Your task to perform on an android device: see creations saved in the google photos Image 0: 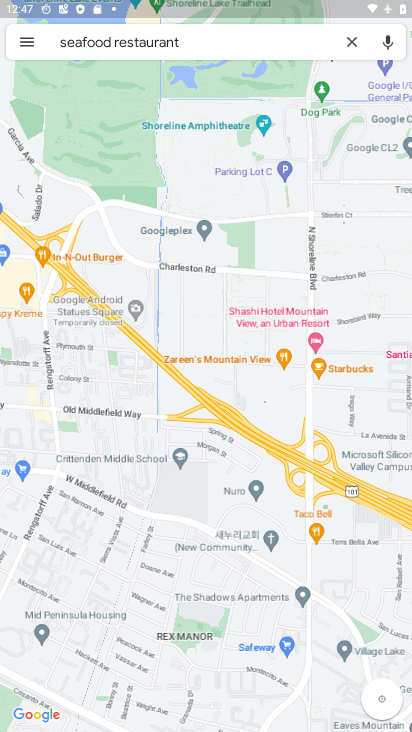
Step 0: press home button
Your task to perform on an android device: see creations saved in the google photos Image 1: 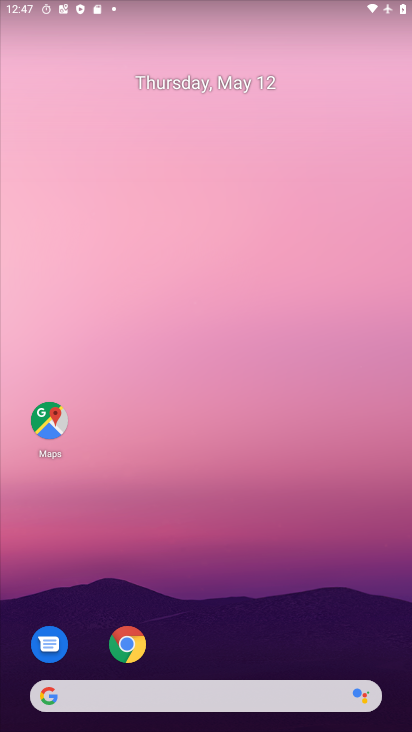
Step 1: drag from (263, 622) to (244, 122)
Your task to perform on an android device: see creations saved in the google photos Image 2: 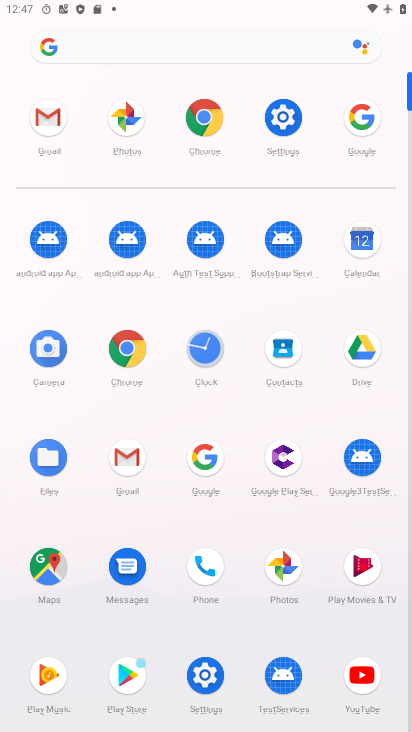
Step 2: click (119, 117)
Your task to perform on an android device: see creations saved in the google photos Image 3: 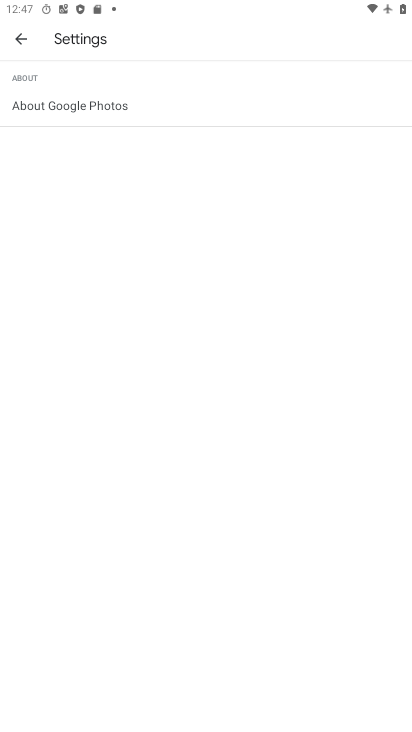
Step 3: click (16, 39)
Your task to perform on an android device: see creations saved in the google photos Image 4: 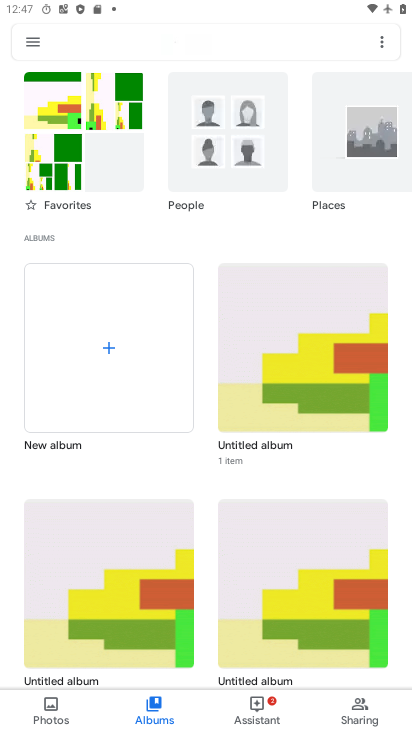
Step 4: click (46, 718)
Your task to perform on an android device: see creations saved in the google photos Image 5: 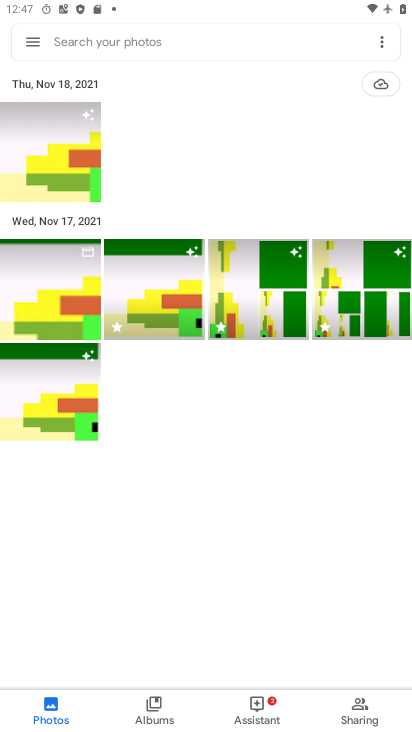
Step 5: click (129, 40)
Your task to perform on an android device: see creations saved in the google photos Image 6: 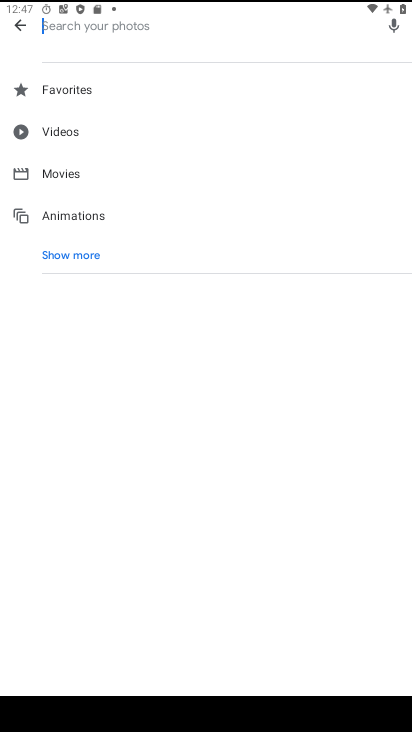
Step 6: type "creations"
Your task to perform on an android device: see creations saved in the google photos Image 7: 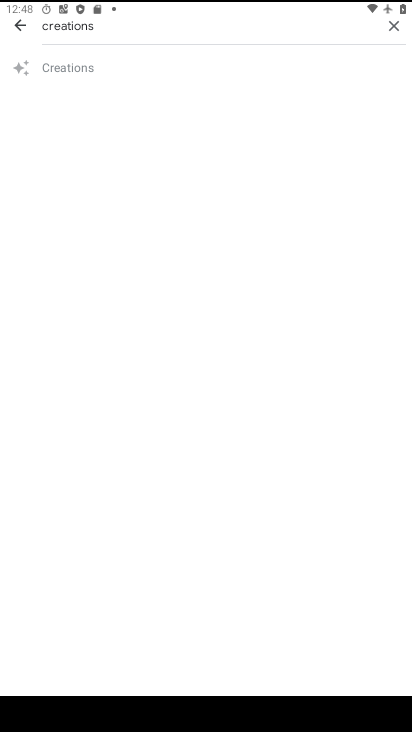
Step 7: click (78, 58)
Your task to perform on an android device: see creations saved in the google photos Image 8: 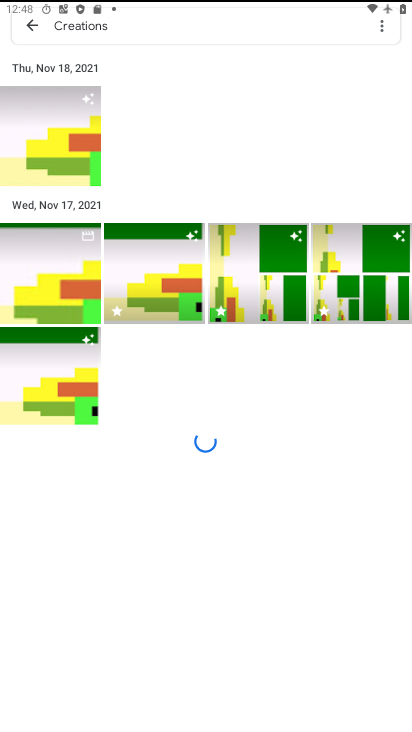
Step 8: task complete